Your task to perform on an android device: manage bookmarks in the chrome app Image 0: 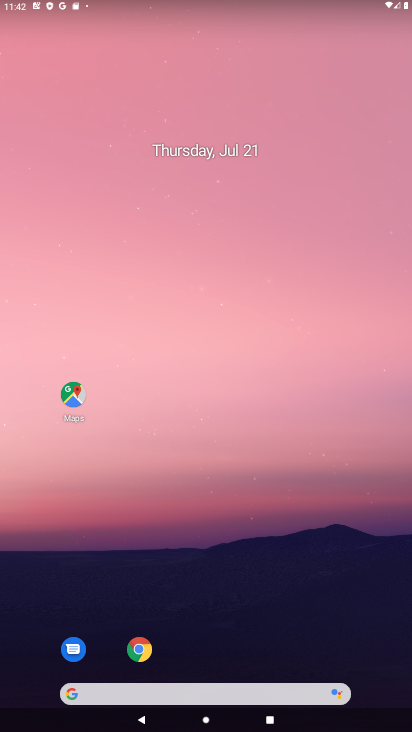
Step 0: click (138, 648)
Your task to perform on an android device: manage bookmarks in the chrome app Image 1: 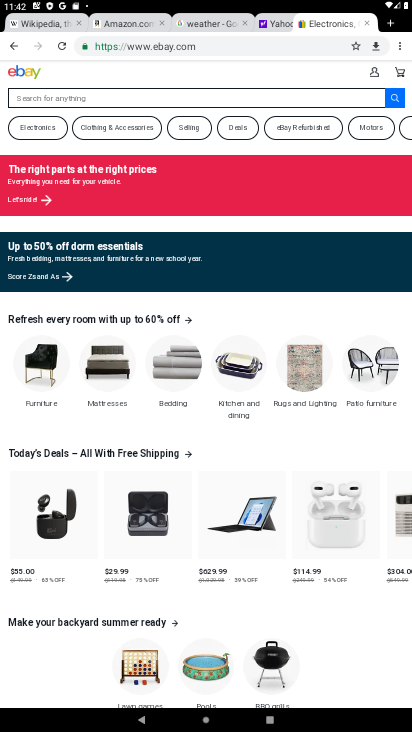
Step 1: click (399, 48)
Your task to perform on an android device: manage bookmarks in the chrome app Image 2: 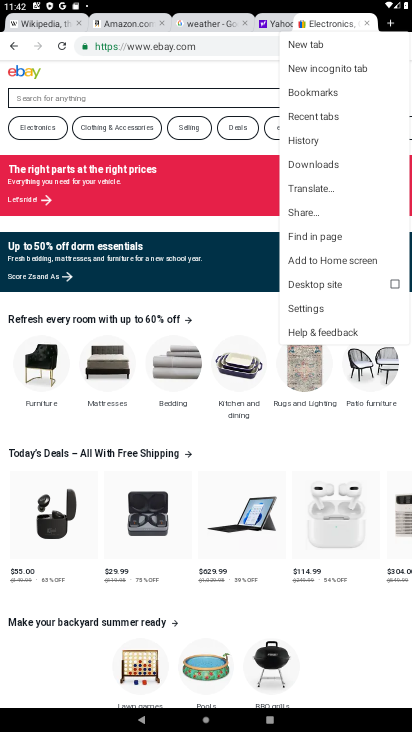
Step 2: click (310, 89)
Your task to perform on an android device: manage bookmarks in the chrome app Image 3: 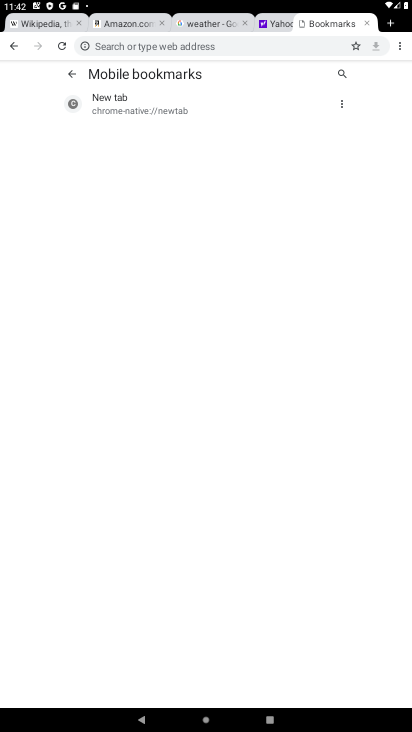
Step 3: click (340, 101)
Your task to perform on an android device: manage bookmarks in the chrome app Image 4: 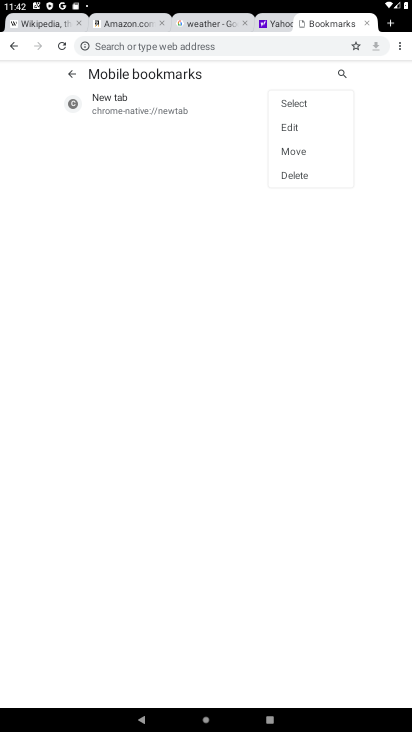
Step 4: click (292, 124)
Your task to perform on an android device: manage bookmarks in the chrome app Image 5: 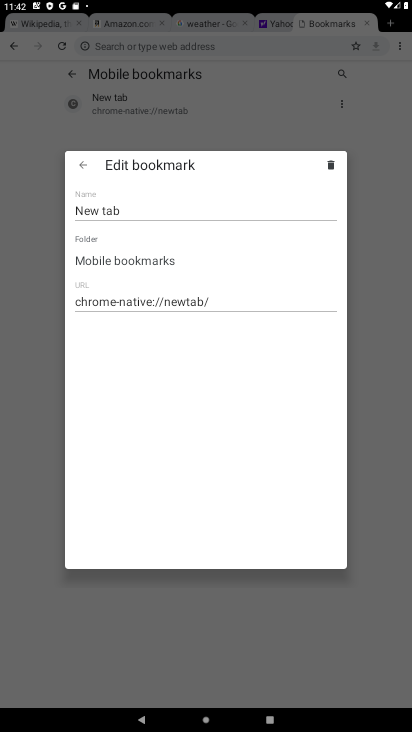
Step 5: click (130, 208)
Your task to perform on an android device: manage bookmarks in the chrome app Image 6: 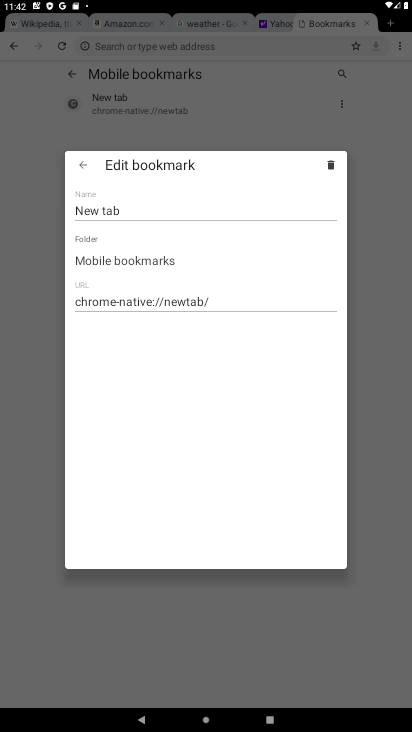
Step 6: click (130, 208)
Your task to perform on an android device: manage bookmarks in the chrome app Image 7: 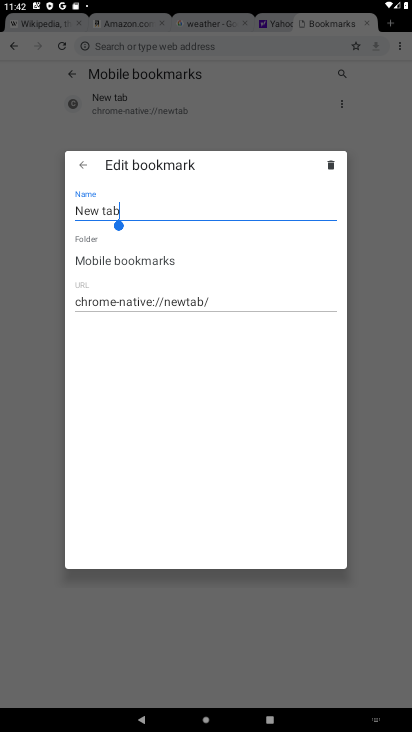
Step 7: click (105, 210)
Your task to perform on an android device: manage bookmarks in the chrome app Image 8: 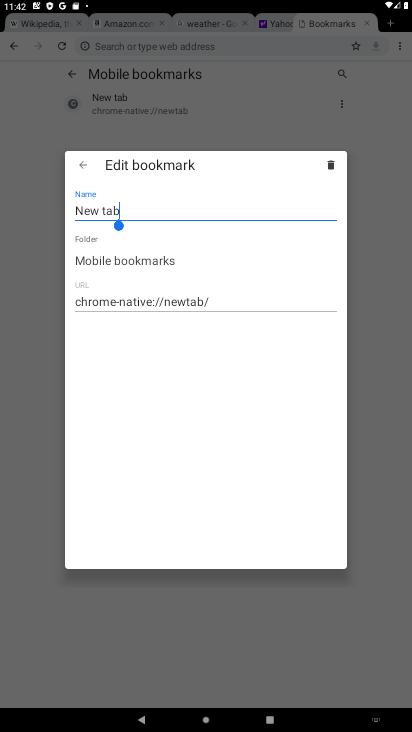
Step 8: click (105, 210)
Your task to perform on an android device: manage bookmarks in the chrome app Image 9: 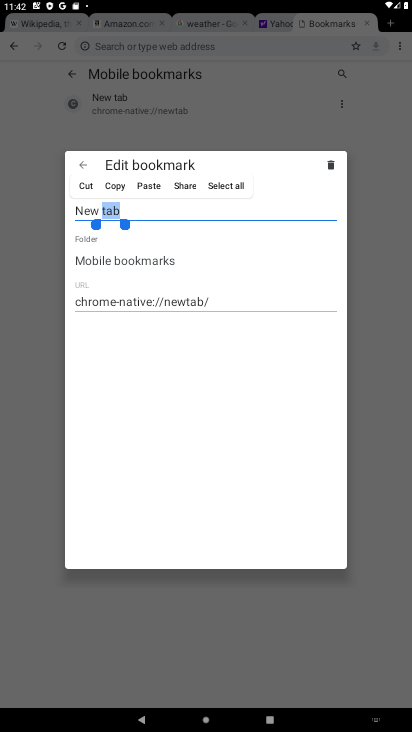
Step 9: click (94, 228)
Your task to perform on an android device: manage bookmarks in the chrome app Image 10: 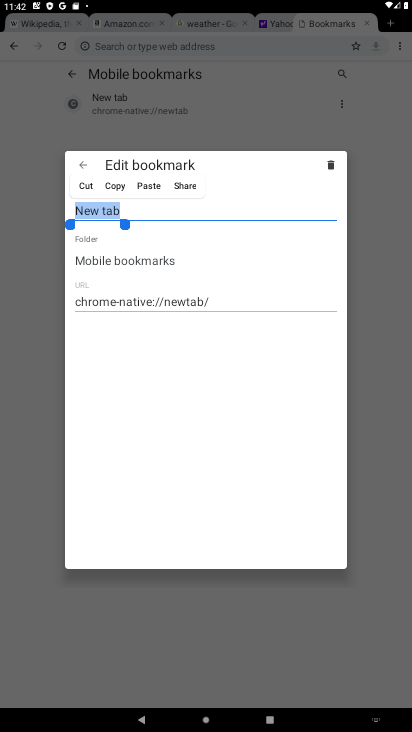
Step 10: click (82, 184)
Your task to perform on an android device: manage bookmarks in the chrome app Image 11: 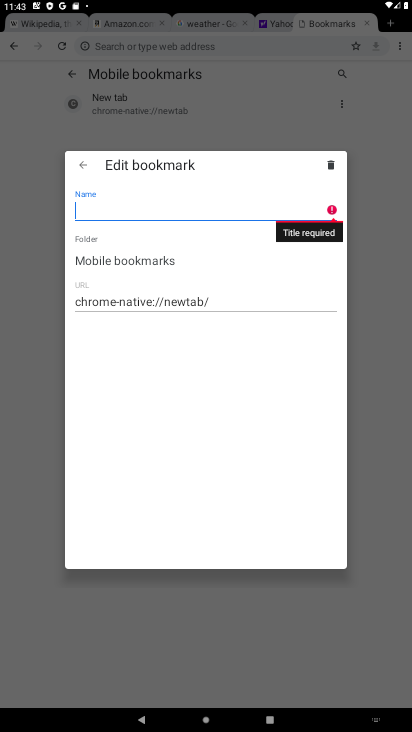
Step 11: type "uuuu"
Your task to perform on an android device: manage bookmarks in the chrome app Image 12: 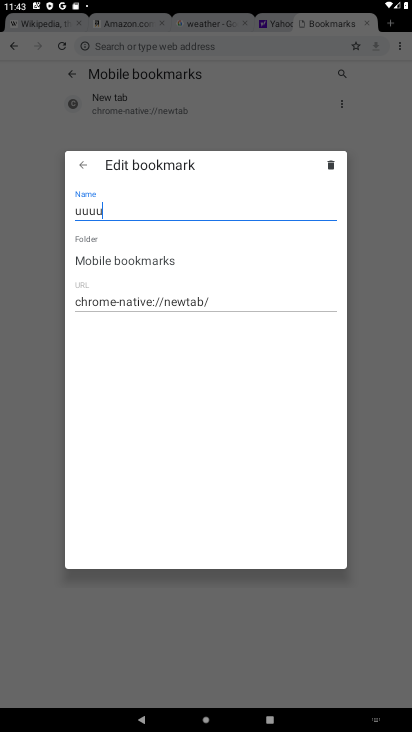
Step 12: click (255, 297)
Your task to perform on an android device: manage bookmarks in the chrome app Image 13: 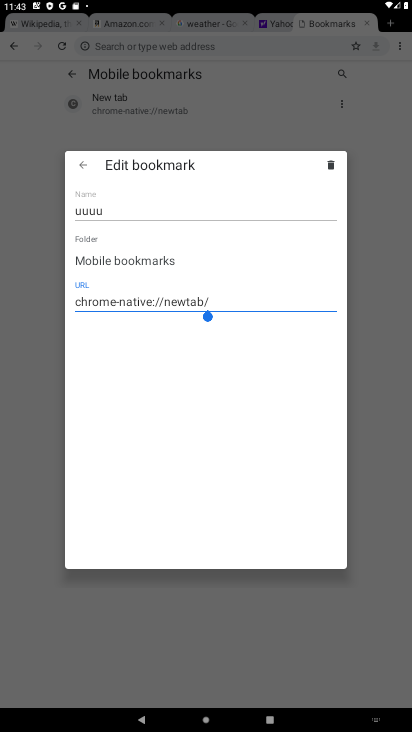
Step 13: click (25, 328)
Your task to perform on an android device: manage bookmarks in the chrome app Image 14: 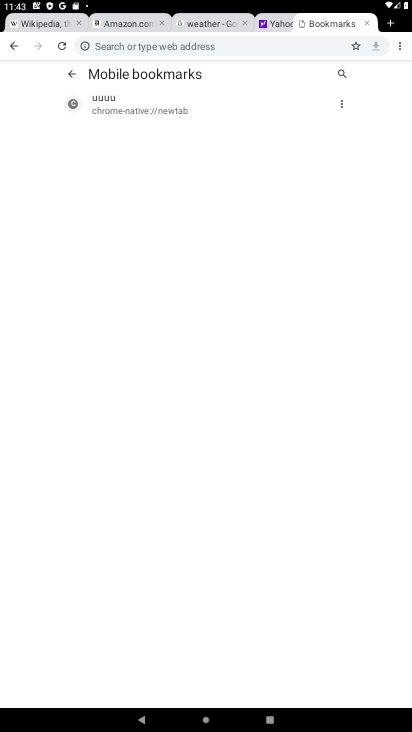
Step 14: task complete